Your task to perform on an android device: Open the calendar app, open the side menu, and click the "Day" option Image 0: 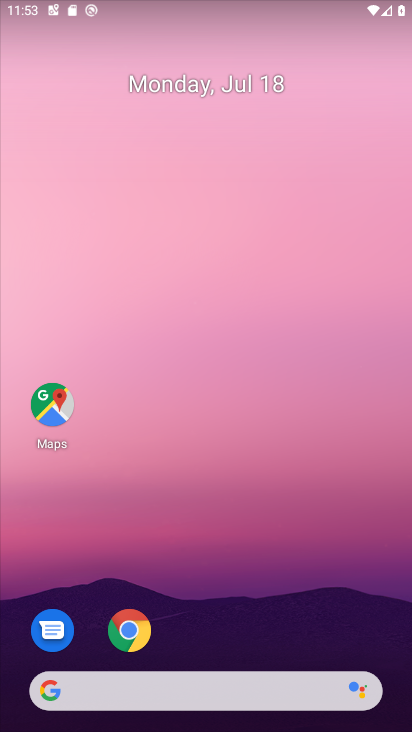
Step 0: drag from (167, 642) to (167, 158)
Your task to perform on an android device: Open the calendar app, open the side menu, and click the "Day" option Image 1: 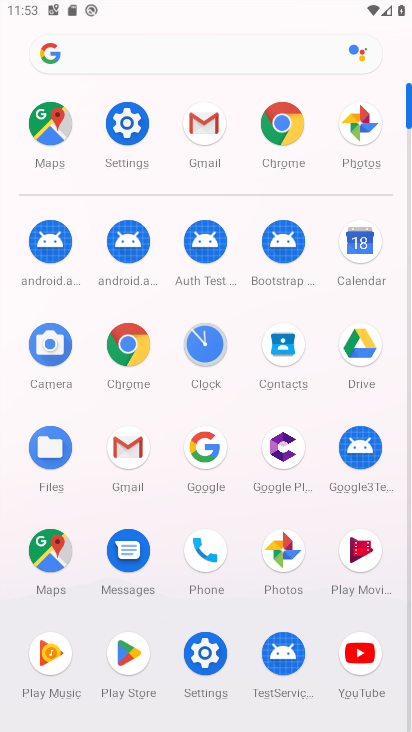
Step 1: click (363, 261)
Your task to perform on an android device: Open the calendar app, open the side menu, and click the "Day" option Image 2: 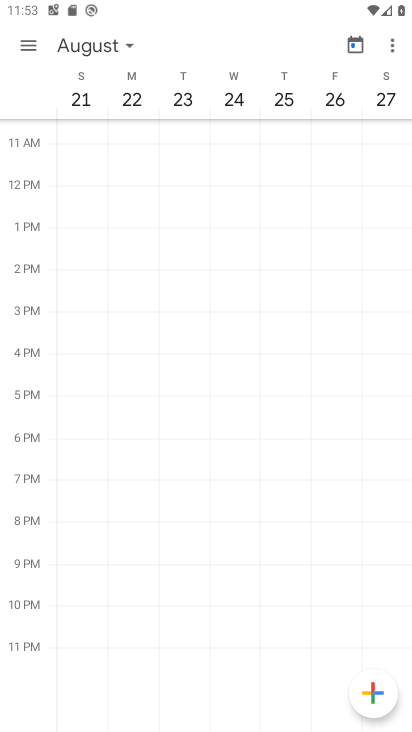
Step 2: click (32, 43)
Your task to perform on an android device: Open the calendar app, open the side menu, and click the "Day" option Image 3: 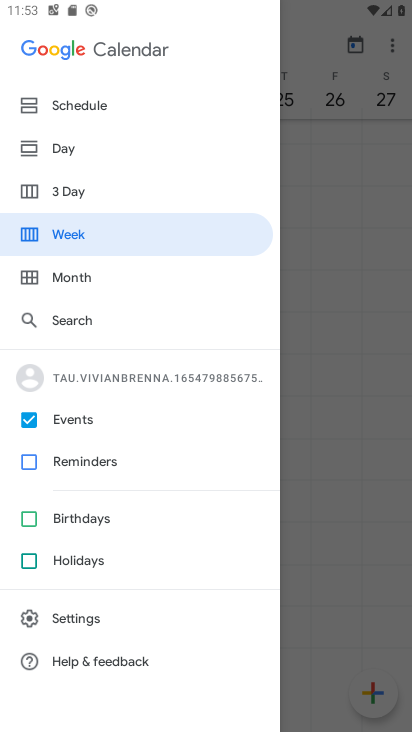
Step 3: click (68, 151)
Your task to perform on an android device: Open the calendar app, open the side menu, and click the "Day" option Image 4: 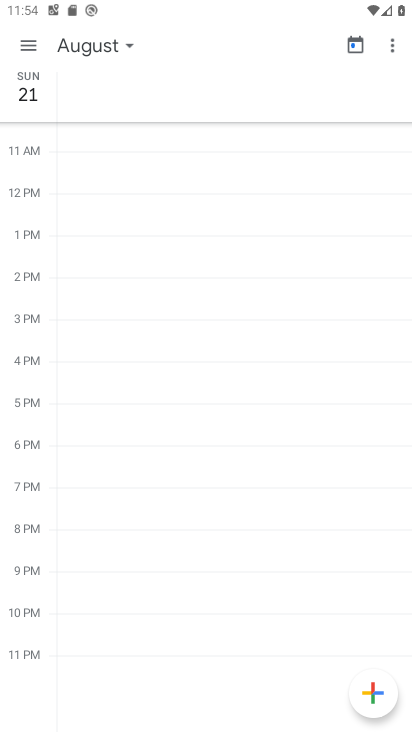
Step 4: task complete